Your task to perform on an android device: open device folders in google photos Image 0: 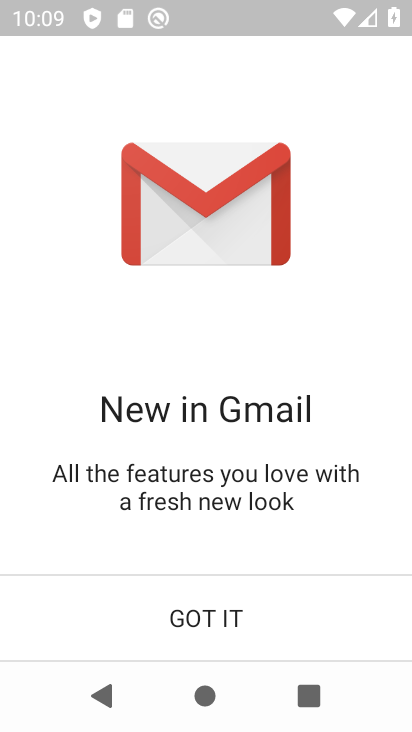
Step 0: press home button
Your task to perform on an android device: open device folders in google photos Image 1: 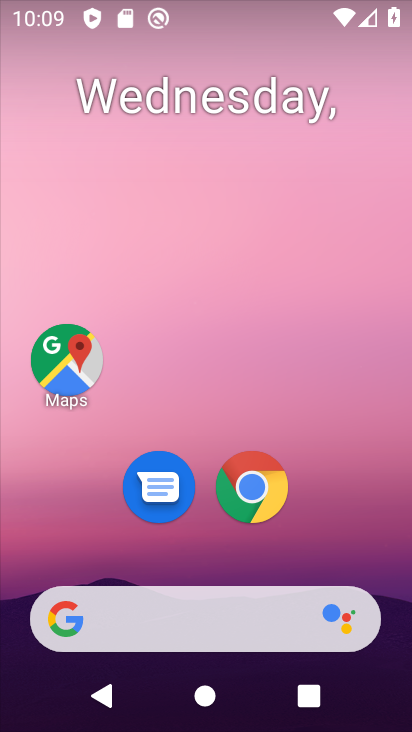
Step 1: drag from (350, 527) to (320, 5)
Your task to perform on an android device: open device folders in google photos Image 2: 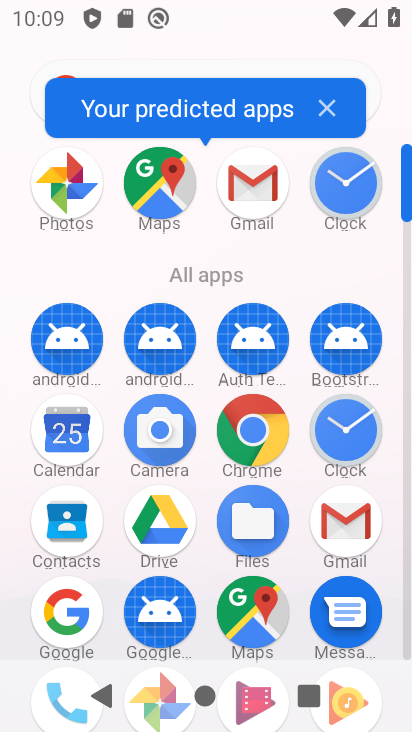
Step 2: click (81, 177)
Your task to perform on an android device: open device folders in google photos Image 3: 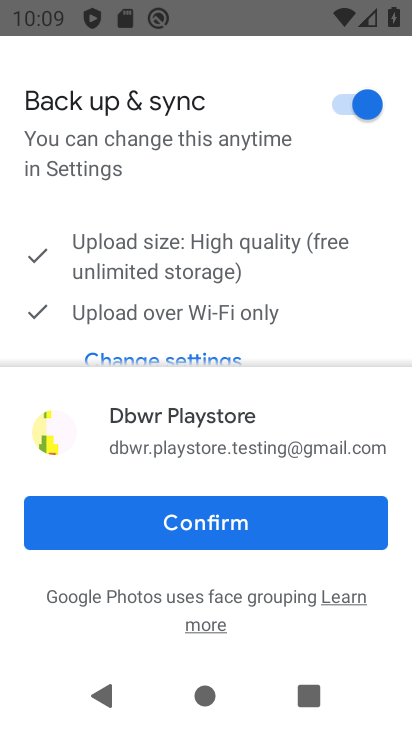
Step 3: click (335, 538)
Your task to perform on an android device: open device folders in google photos Image 4: 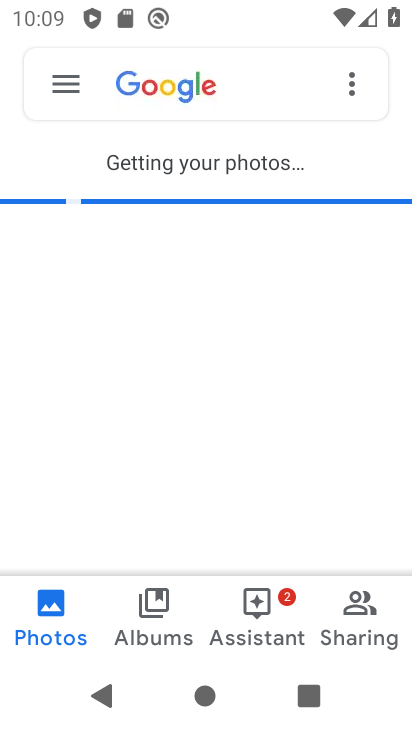
Step 4: click (73, 94)
Your task to perform on an android device: open device folders in google photos Image 5: 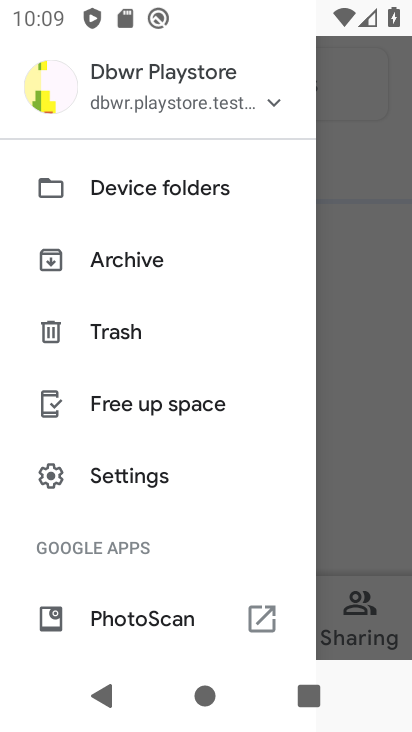
Step 5: click (141, 191)
Your task to perform on an android device: open device folders in google photos Image 6: 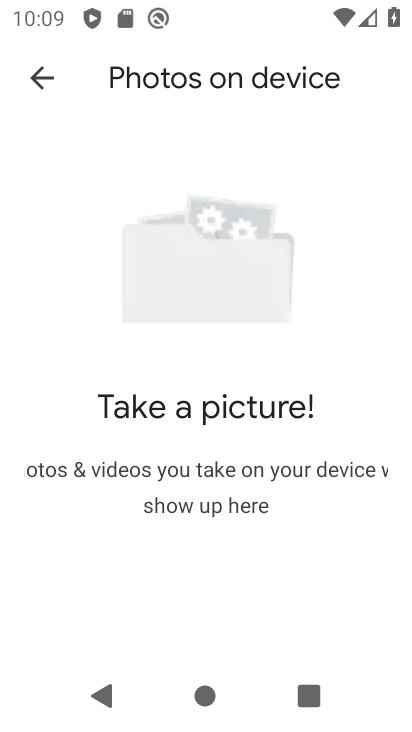
Step 6: task complete